Your task to perform on an android device: change keyboard looks Image 0: 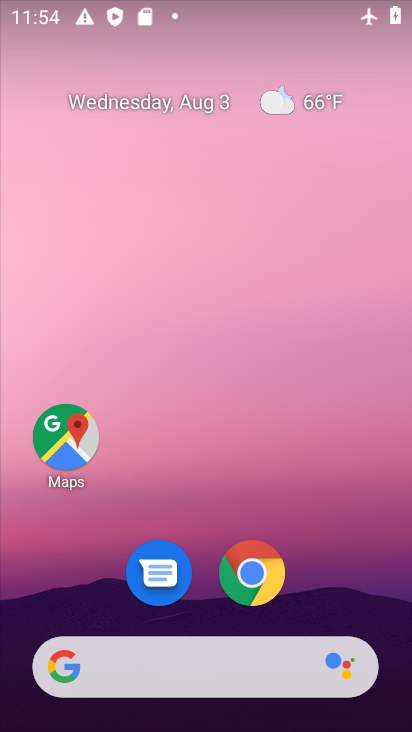
Step 0: drag from (351, 514) to (349, 65)
Your task to perform on an android device: change keyboard looks Image 1: 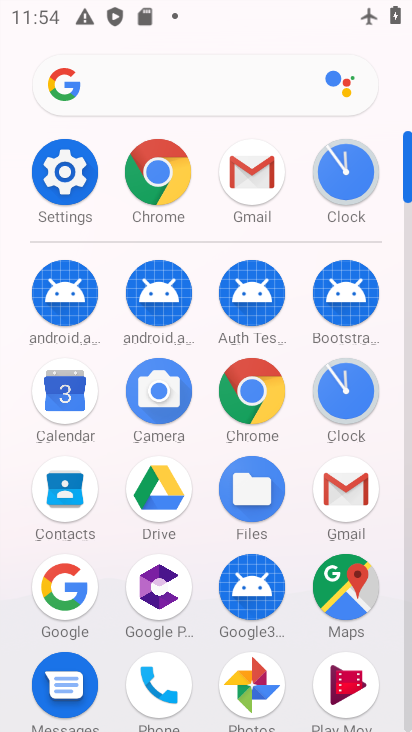
Step 1: click (73, 172)
Your task to perform on an android device: change keyboard looks Image 2: 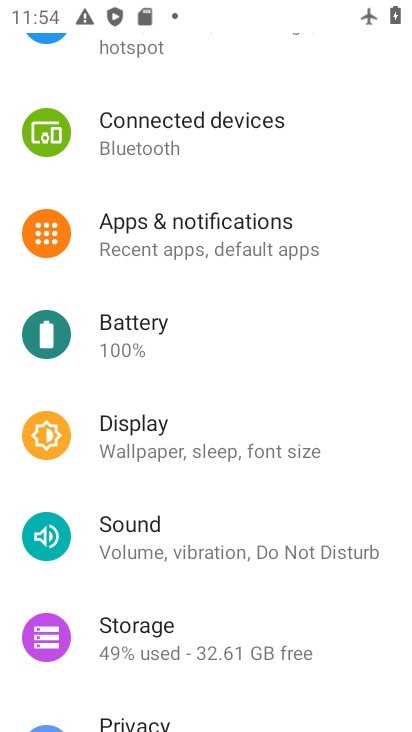
Step 2: drag from (263, 587) to (266, 153)
Your task to perform on an android device: change keyboard looks Image 3: 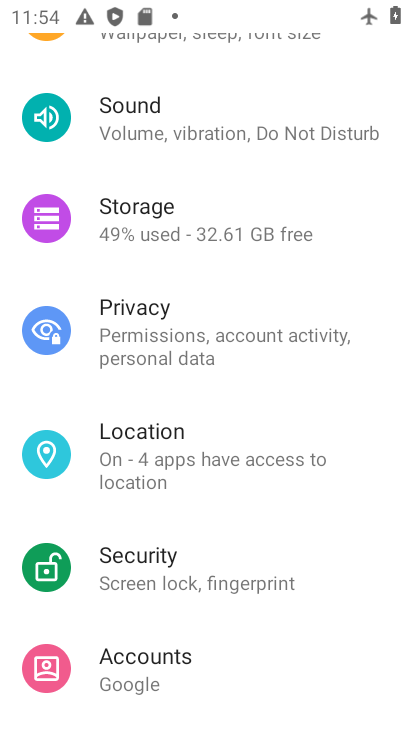
Step 3: drag from (347, 689) to (341, 205)
Your task to perform on an android device: change keyboard looks Image 4: 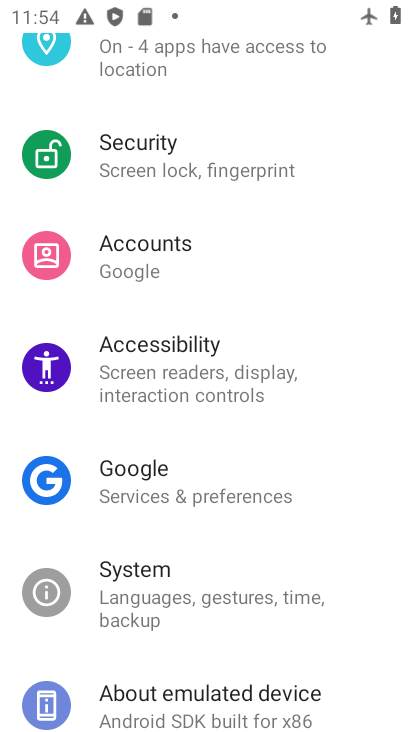
Step 4: click (210, 588)
Your task to perform on an android device: change keyboard looks Image 5: 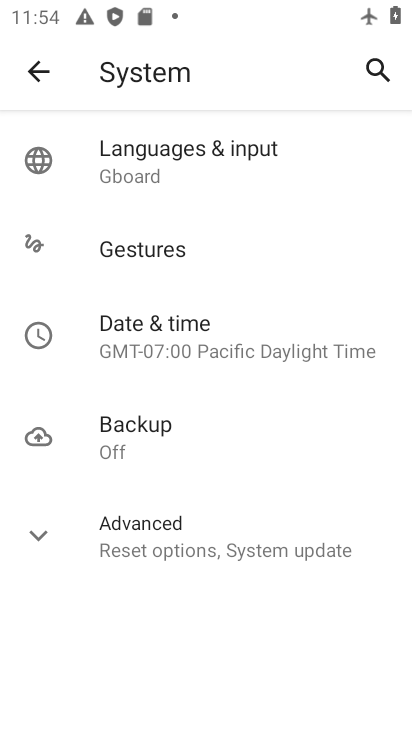
Step 5: click (152, 158)
Your task to perform on an android device: change keyboard looks Image 6: 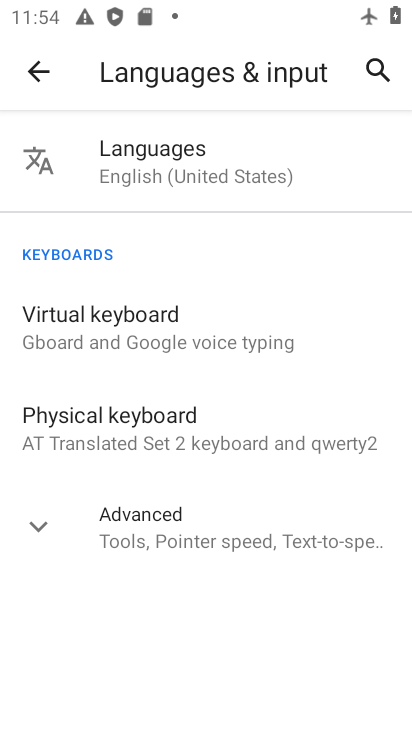
Step 6: click (130, 356)
Your task to perform on an android device: change keyboard looks Image 7: 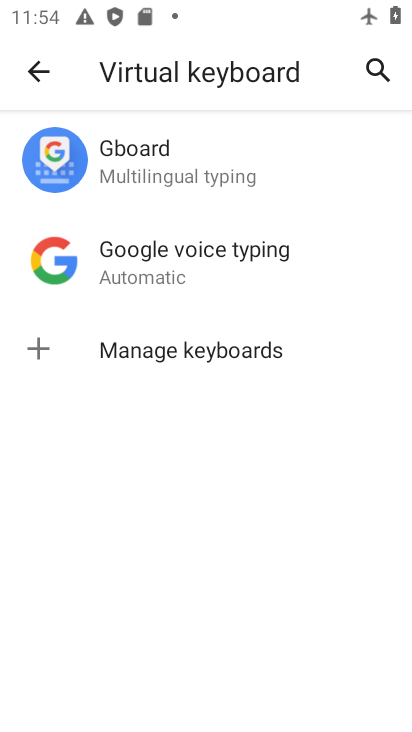
Step 7: click (218, 173)
Your task to perform on an android device: change keyboard looks Image 8: 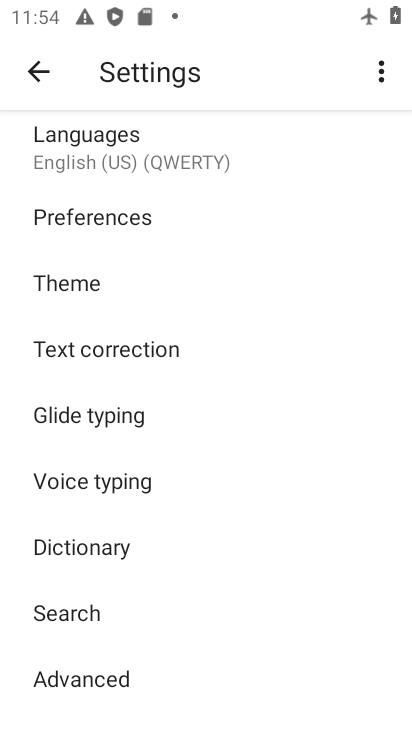
Step 8: click (95, 275)
Your task to perform on an android device: change keyboard looks Image 9: 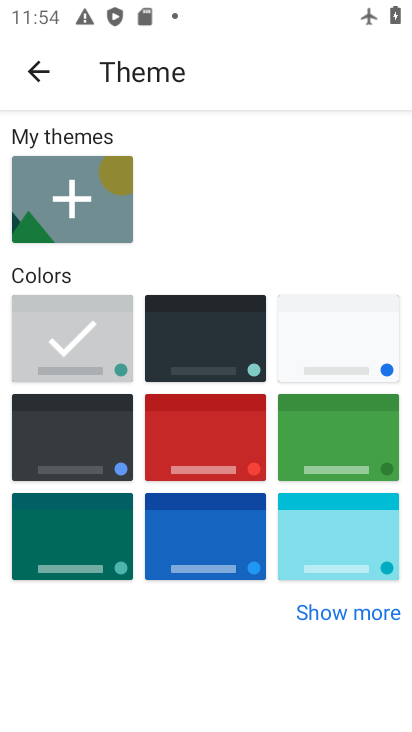
Step 9: click (385, 344)
Your task to perform on an android device: change keyboard looks Image 10: 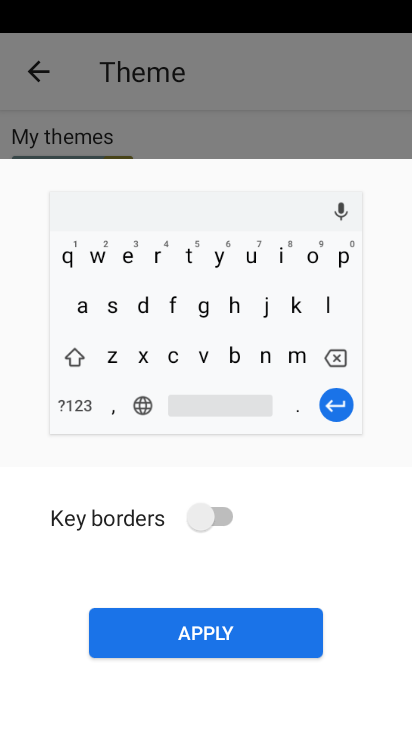
Step 10: click (184, 621)
Your task to perform on an android device: change keyboard looks Image 11: 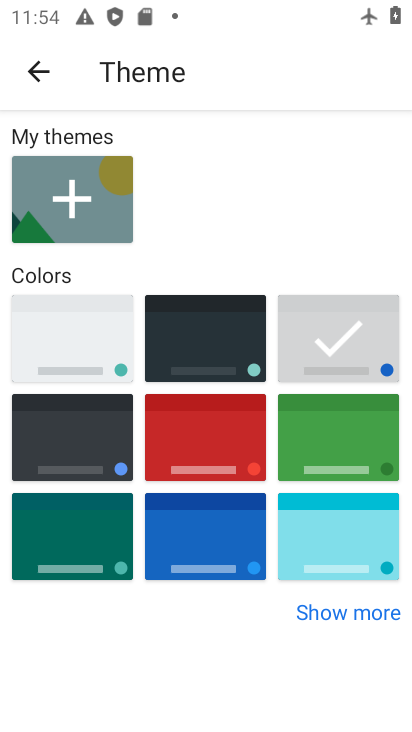
Step 11: task complete